Your task to perform on an android device: Turn off the flashlight Image 0: 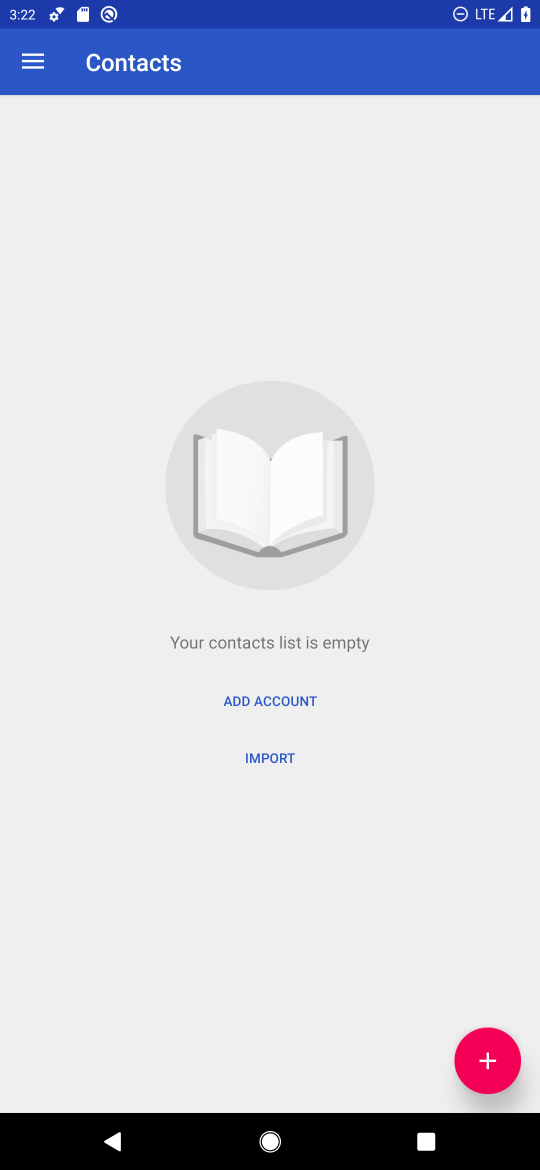
Step 0: press home button
Your task to perform on an android device: Turn off the flashlight Image 1: 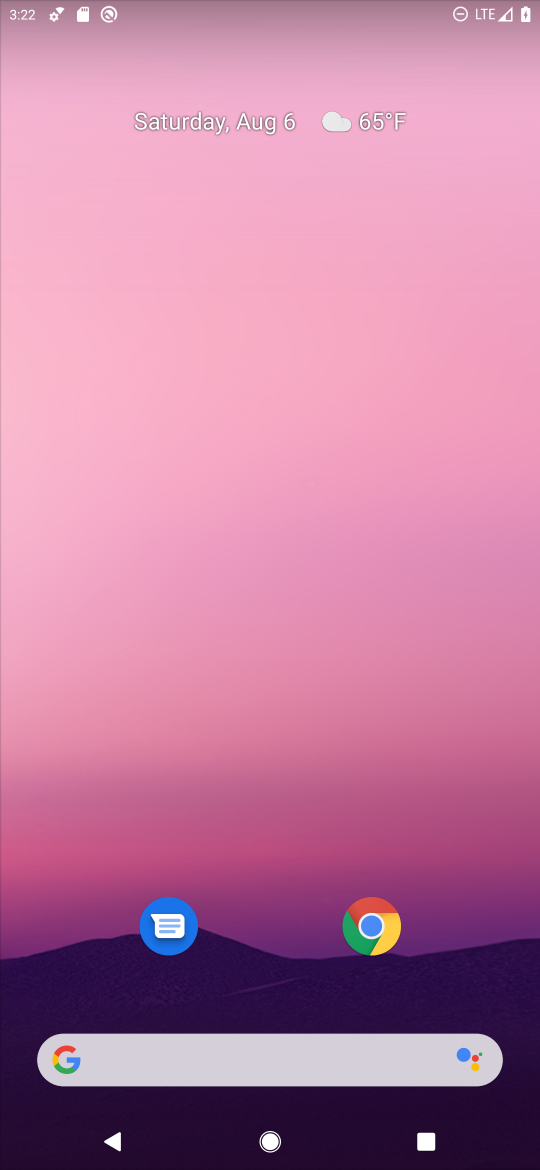
Step 1: drag from (287, 907) to (318, 377)
Your task to perform on an android device: Turn off the flashlight Image 2: 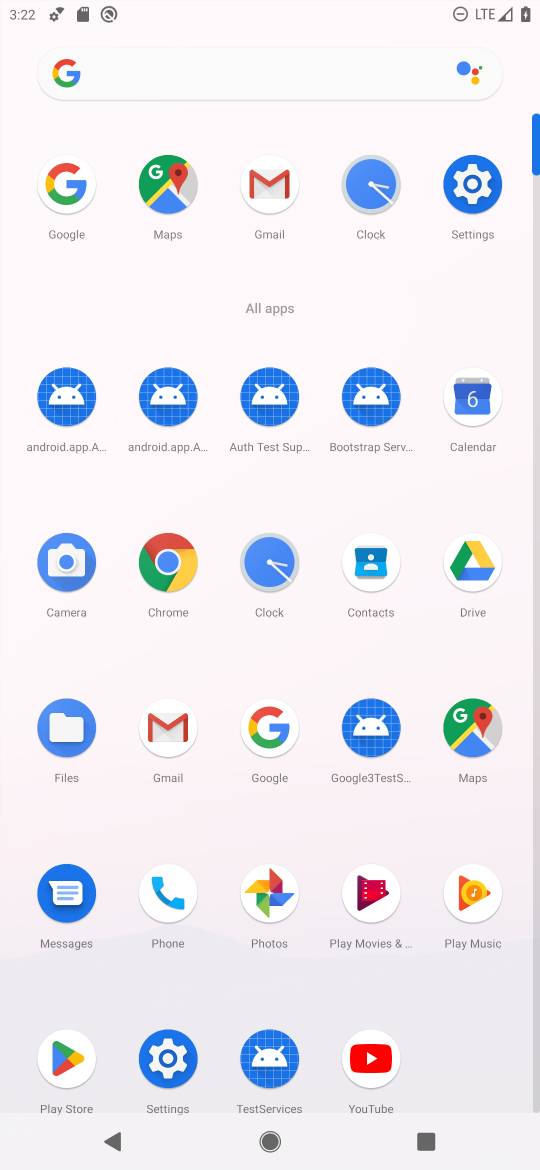
Step 2: click (457, 185)
Your task to perform on an android device: Turn off the flashlight Image 3: 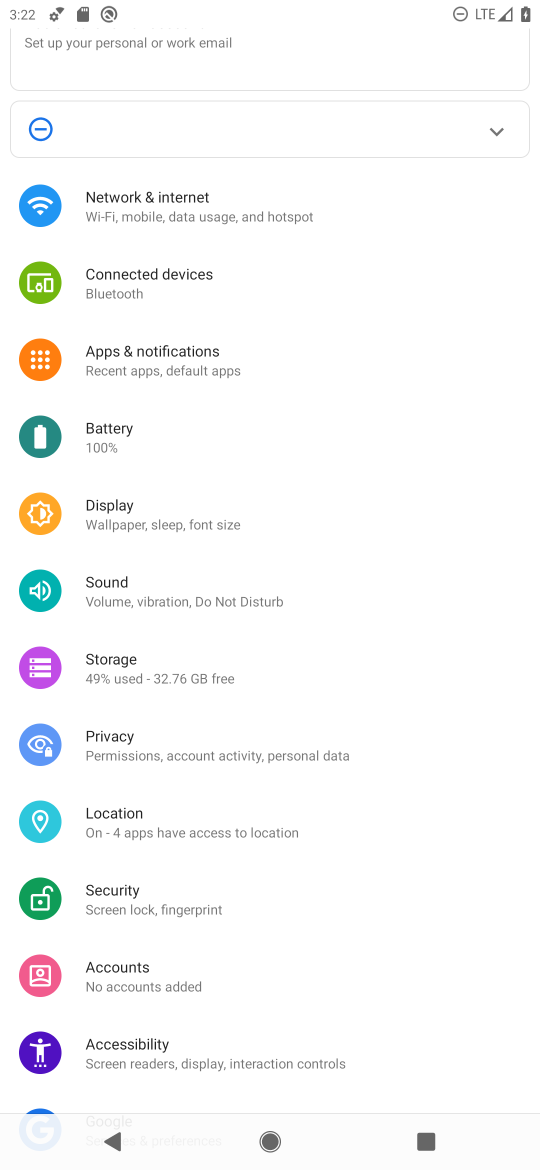
Step 3: task complete